Your task to perform on an android device: toggle translation in the chrome app Image 0: 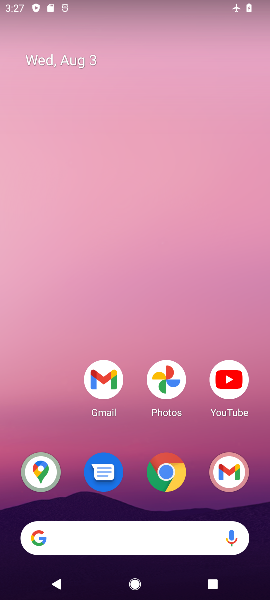
Step 0: click (170, 482)
Your task to perform on an android device: toggle translation in the chrome app Image 1: 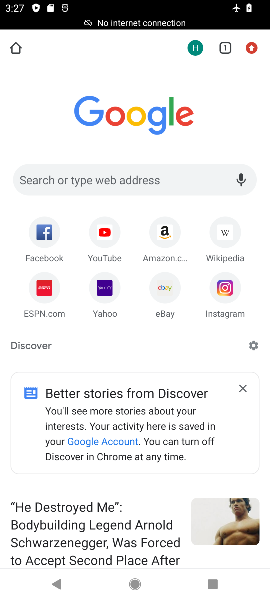
Step 1: drag from (248, 47) to (141, 365)
Your task to perform on an android device: toggle translation in the chrome app Image 2: 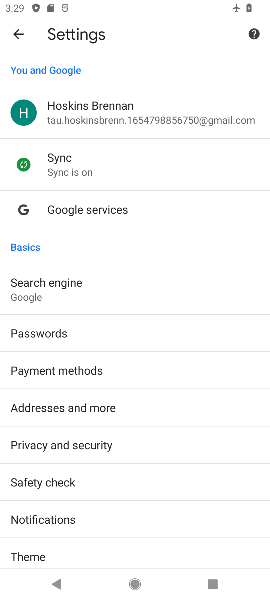
Step 2: press back button
Your task to perform on an android device: toggle translation in the chrome app Image 3: 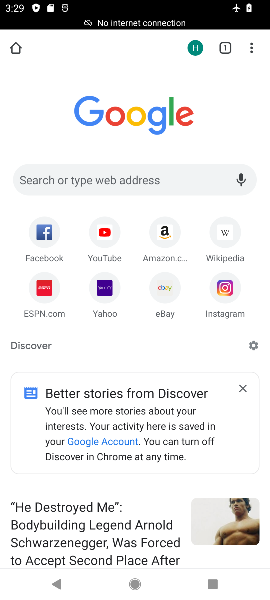
Step 3: press back button
Your task to perform on an android device: toggle translation in the chrome app Image 4: 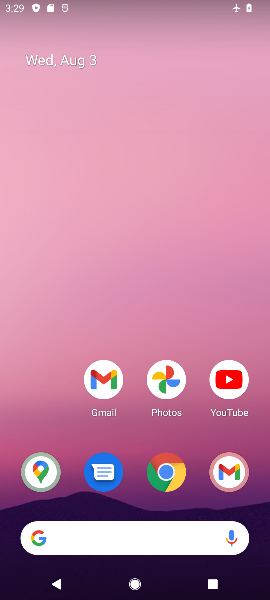
Step 4: click (170, 479)
Your task to perform on an android device: toggle translation in the chrome app Image 5: 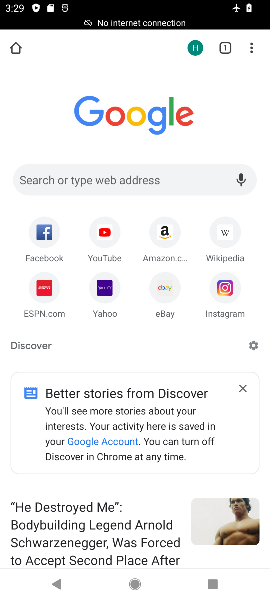
Step 5: drag from (252, 50) to (149, 371)
Your task to perform on an android device: toggle translation in the chrome app Image 6: 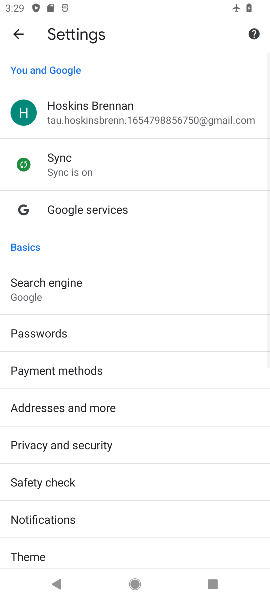
Step 6: drag from (91, 523) to (126, 352)
Your task to perform on an android device: toggle translation in the chrome app Image 7: 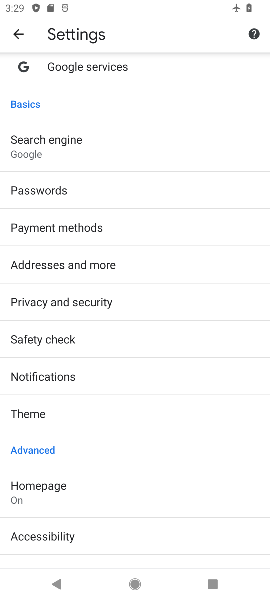
Step 7: drag from (71, 498) to (164, 197)
Your task to perform on an android device: toggle translation in the chrome app Image 8: 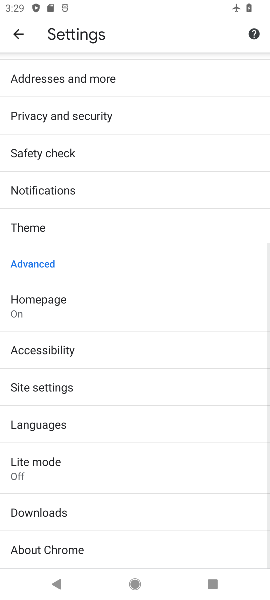
Step 8: click (62, 416)
Your task to perform on an android device: toggle translation in the chrome app Image 9: 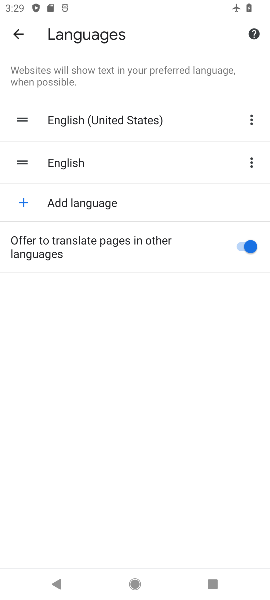
Step 9: click (251, 243)
Your task to perform on an android device: toggle translation in the chrome app Image 10: 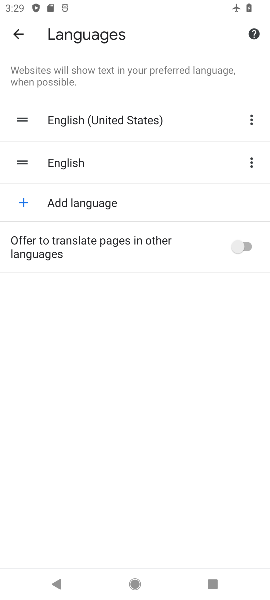
Step 10: task complete